Your task to perform on an android device: turn off improve location accuracy Image 0: 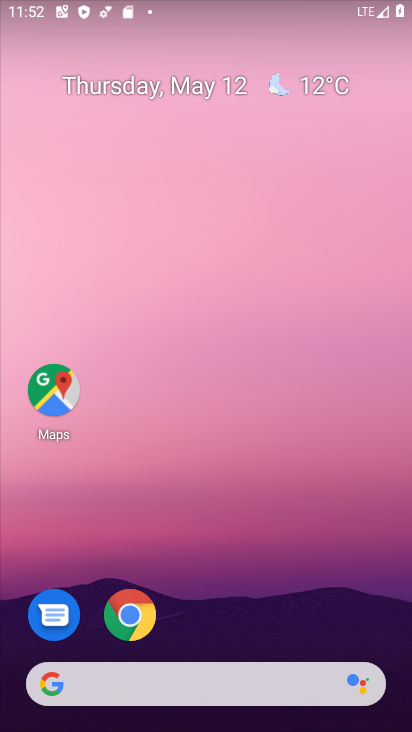
Step 0: drag from (251, 636) to (251, 186)
Your task to perform on an android device: turn off improve location accuracy Image 1: 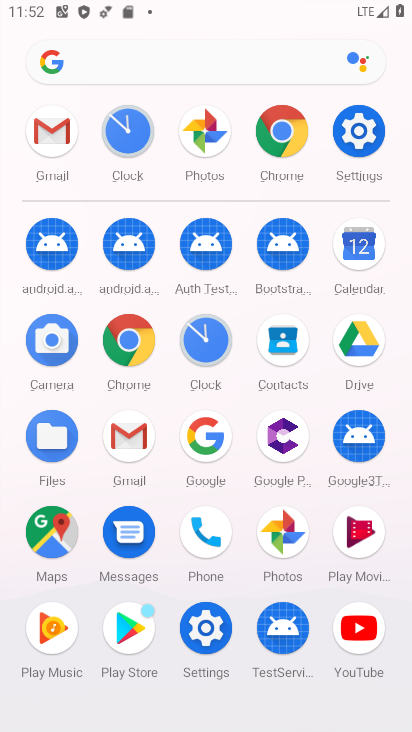
Step 1: click (354, 134)
Your task to perform on an android device: turn off improve location accuracy Image 2: 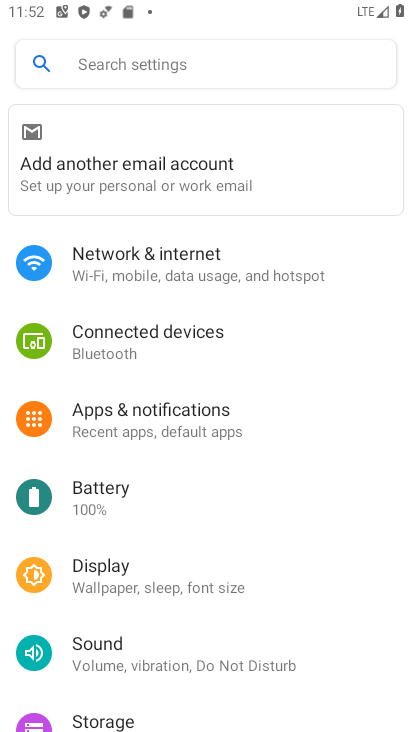
Step 2: drag from (221, 647) to (263, 431)
Your task to perform on an android device: turn off improve location accuracy Image 3: 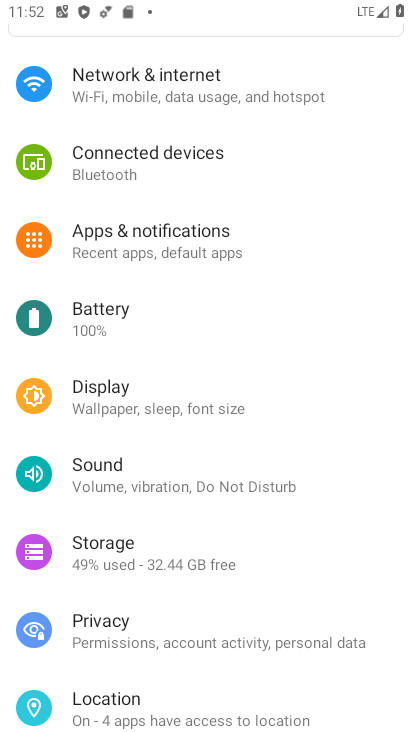
Step 3: click (197, 695)
Your task to perform on an android device: turn off improve location accuracy Image 4: 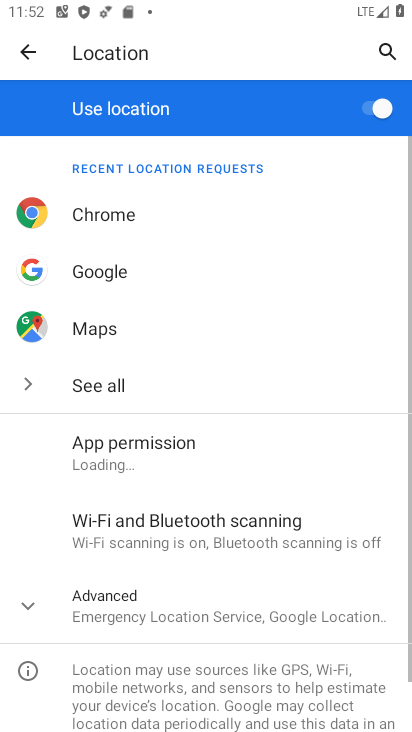
Step 4: drag from (211, 620) to (222, 363)
Your task to perform on an android device: turn off improve location accuracy Image 5: 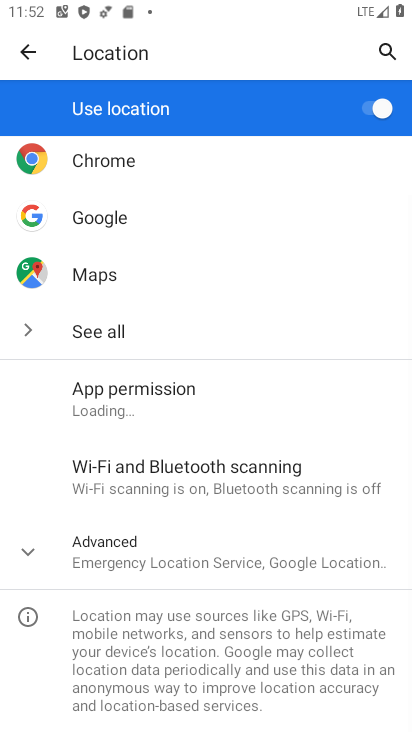
Step 5: click (214, 564)
Your task to perform on an android device: turn off improve location accuracy Image 6: 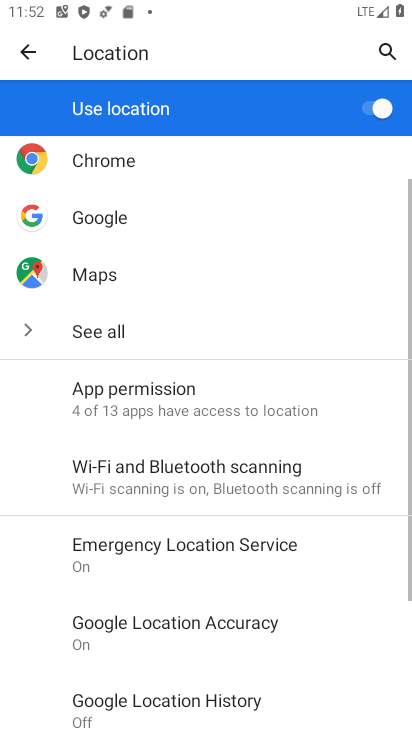
Step 6: drag from (220, 598) to (260, 379)
Your task to perform on an android device: turn off improve location accuracy Image 7: 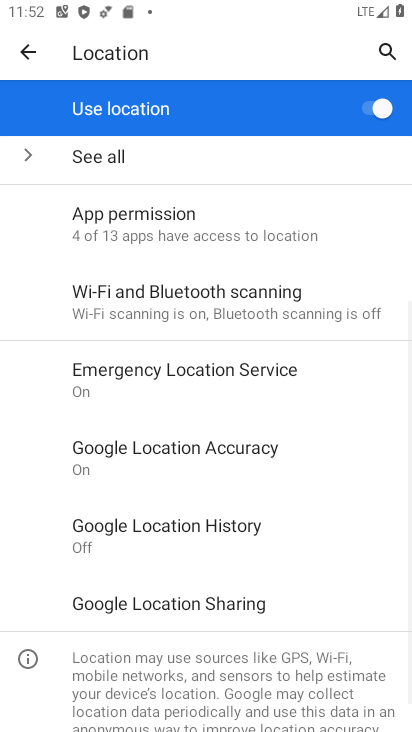
Step 7: click (243, 448)
Your task to perform on an android device: turn off improve location accuracy Image 8: 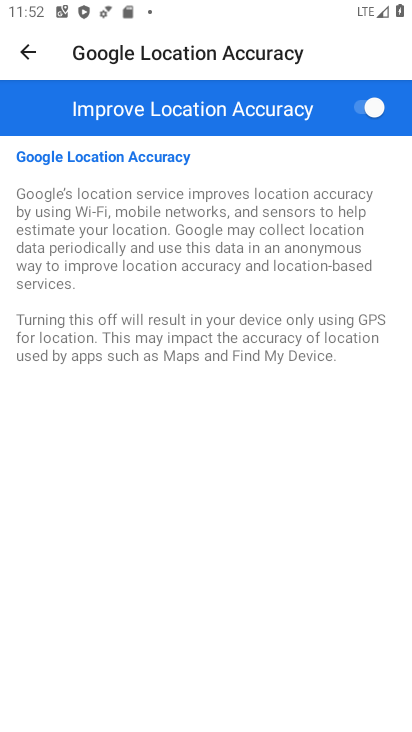
Step 8: click (345, 108)
Your task to perform on an android device: turn off improve location accuracy Image 9: 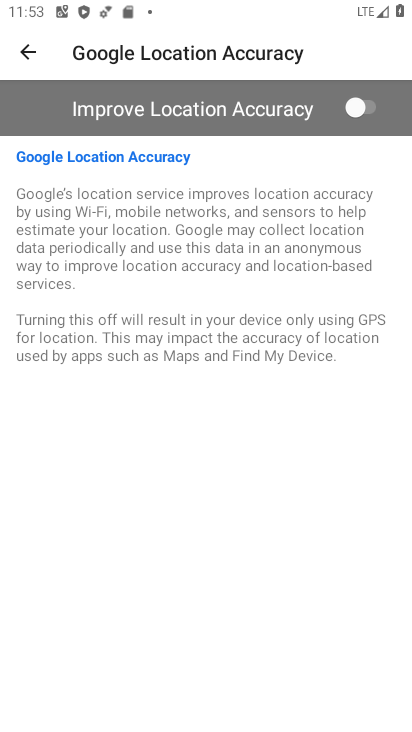
Step 9: task complete